Your task to perform on an android device: Open display settings Image 0: 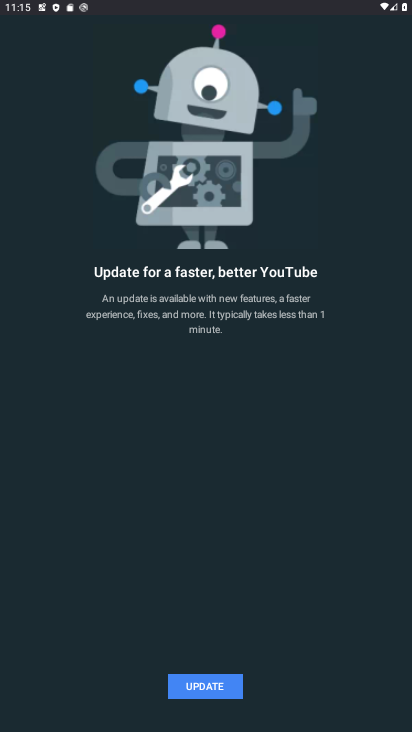
Step 0: press home button
Your task to perform on an android device: Open display settings Image 1: 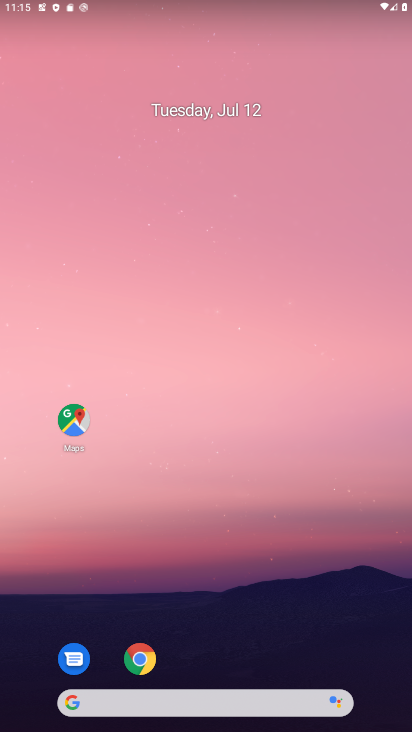
Step 1: drag from (269, 709) to (294, 75)
Your task to perform on an android device: Open display settings Image 2: 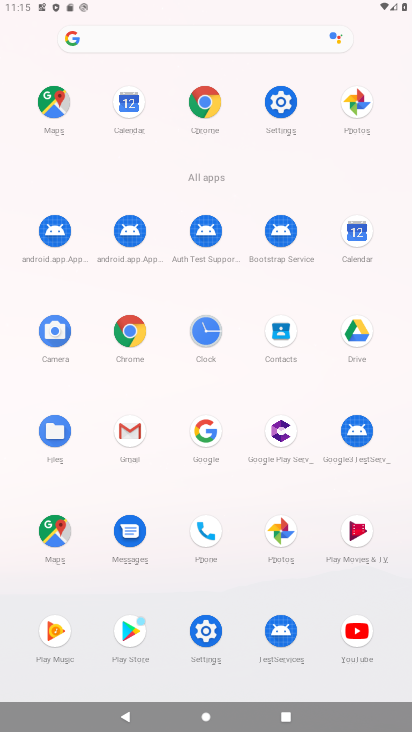
Step 2: click (290, 91)
Your task to perform on an android device: Open display settings Image 3: 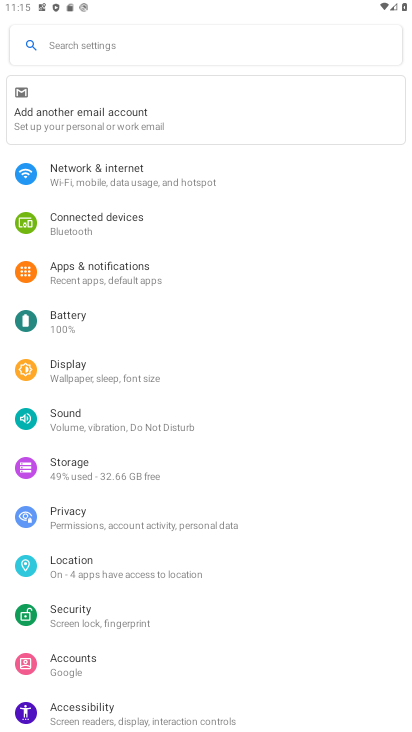
Step 3: click (111, 382)
Your task to perform on an android device: Open display settings Image 4: 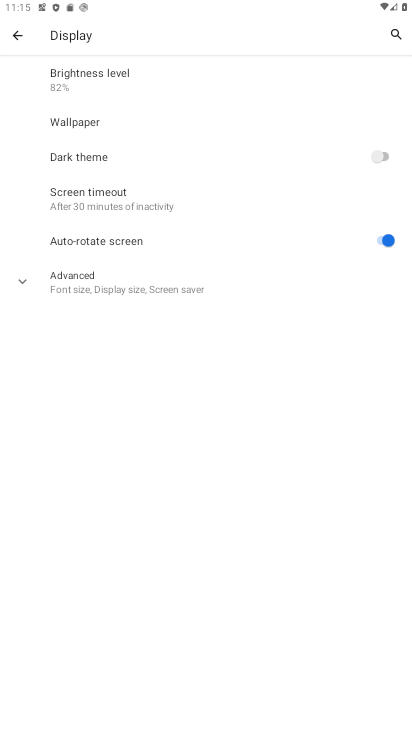
Step 4: task complete